Your task to perform on an android device: change the clock display to analog Image 0: 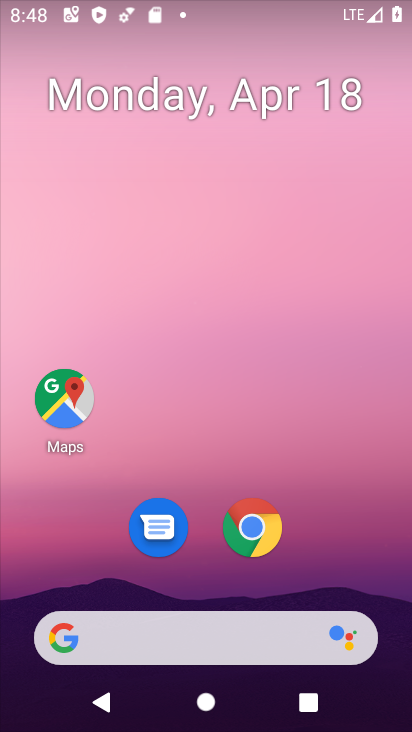
Step 0: drag from (392, 677) to (358, 79)
Your task to perform on an android device: change the clock display to analog Image 1: 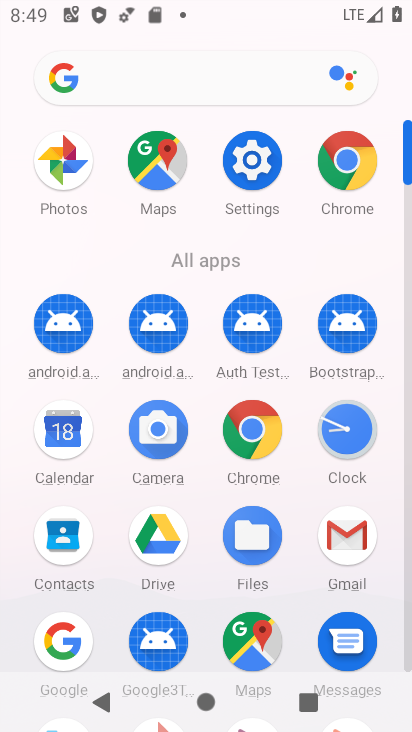
Step 1: drag from (11, 522) to (9, 212)
Your task to perform on an android device: change the clock display to analog Image 2: 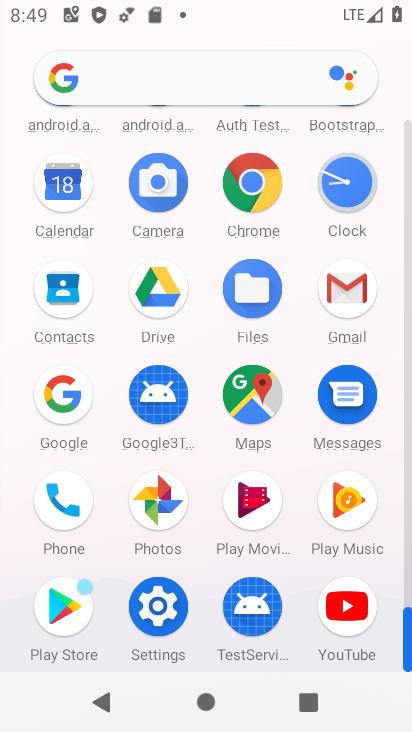
Step 2: click (346, 174)
Your task to perform on an android device: change the clock display to analog Image 3: 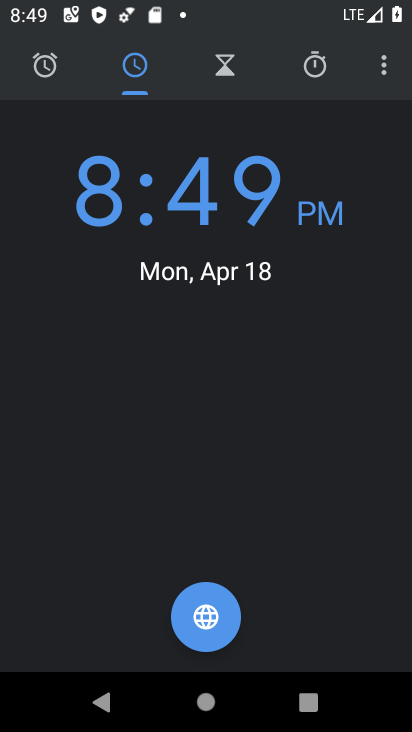
Step 3: click (378, 70)
Your task to perform on an android device: change the clock display to analog Image 4: 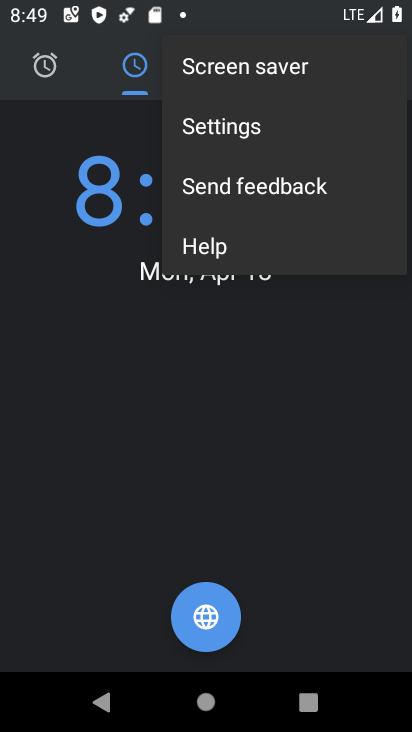
Step 4: click (284, 124)
Your task to perform on an android device: change the clock display to analog Image 5: 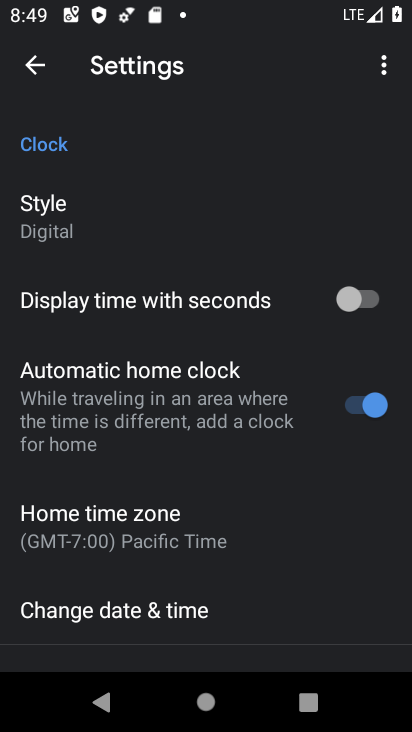
Step 5: click (105, 204)
Your task to perform on an android device: change the clock display to analog Image 6: 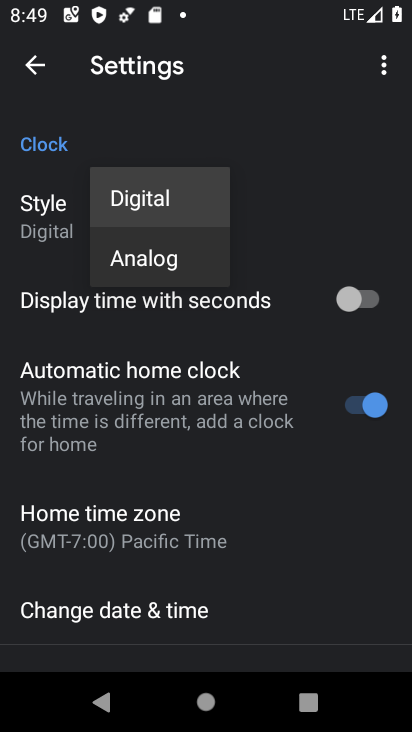
Step 6: click (127, 253)
Your task to perform on an android device: change the clock display to analog Image 7: 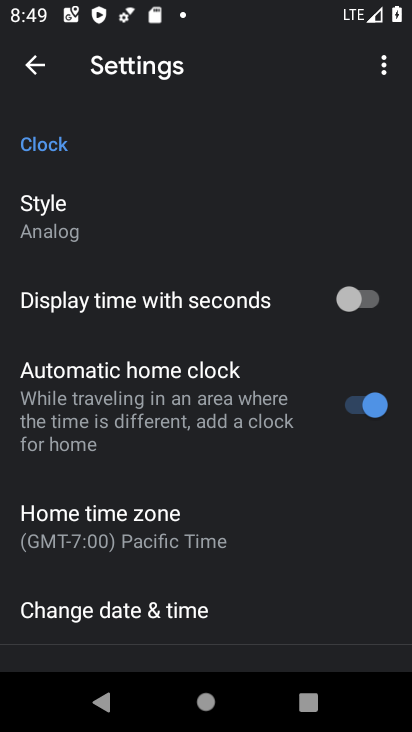
Step 7: task complete